Your task to perform on an android device: Open Google Chrome and open the bookmarks view Image 0: 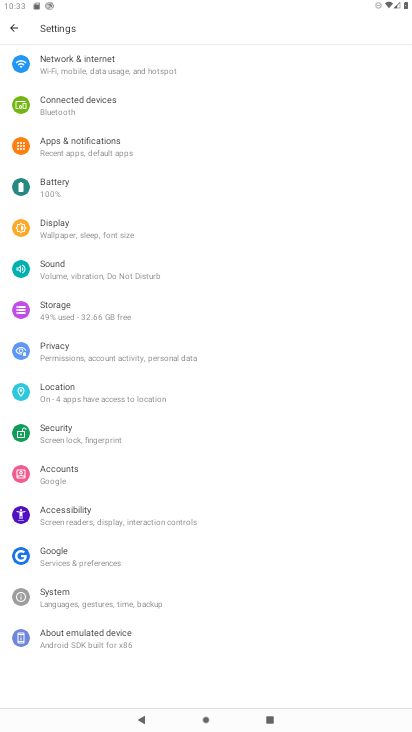
Step 0: press home button
Your task to perform on an android device: Open Google Chrome and open the bookmarks view Image 1: 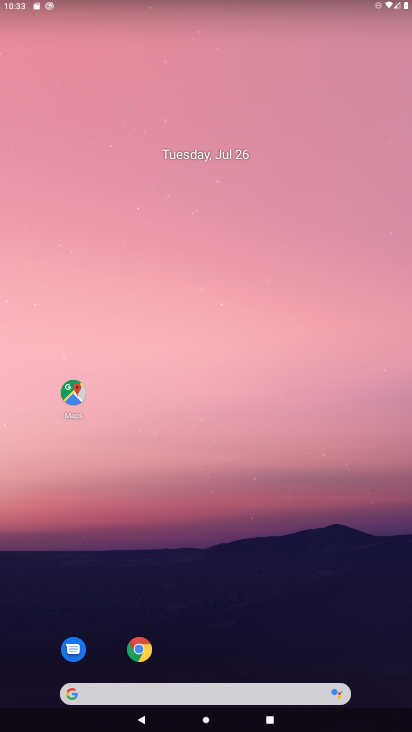
Step 1: click (138, 654)
Your task to perform on an android device: Open Google Chrome and open the bookmarks view Image 2: 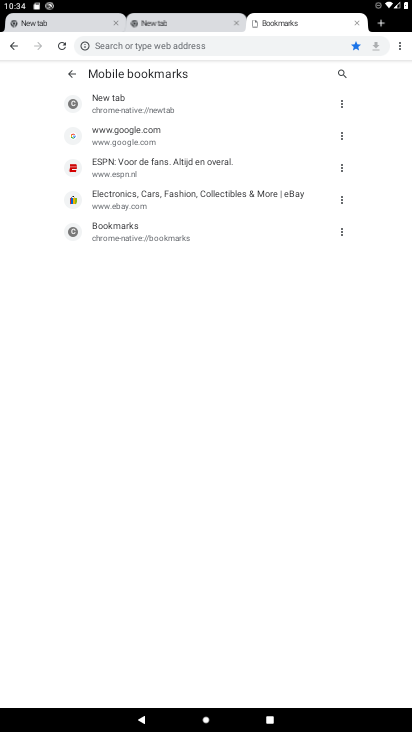
Step 2: task complete